Your task to perform on an android device: open wifi settings Image 0: 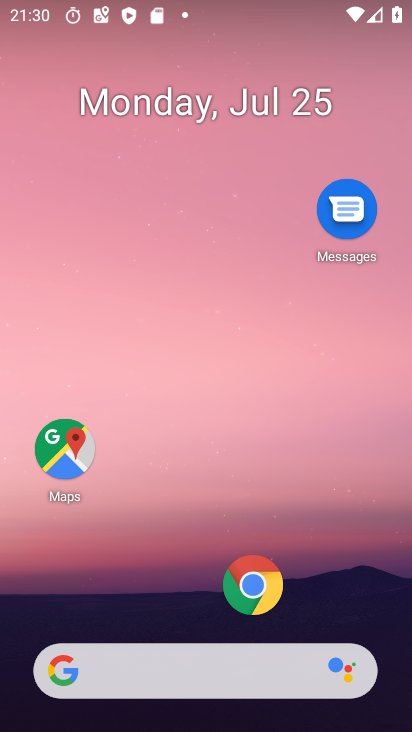
Step 0: drag from (185, 615) to (267, 139)
Your task to perform on an android device: open wifi settings Image 1: 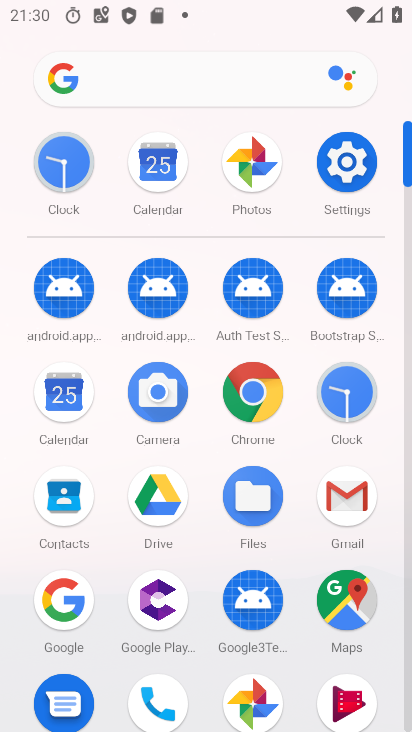
Step 1: click (338, 159)
Your task to perform on an android device: open wifi settings Image 2: 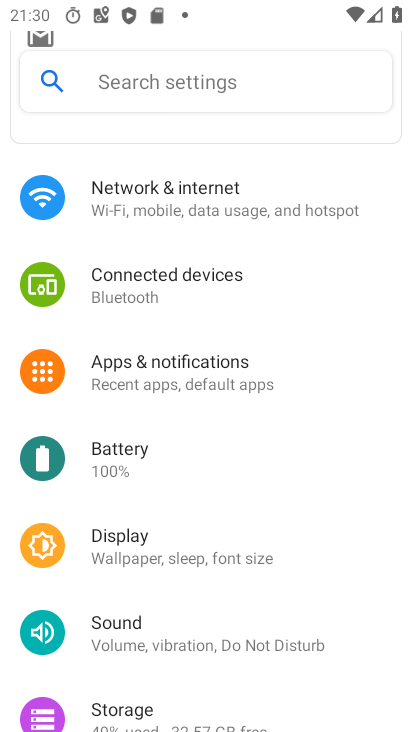
Step 2: click (182, 201)
Your task to perform on an android device: open wifi settings Image 3: 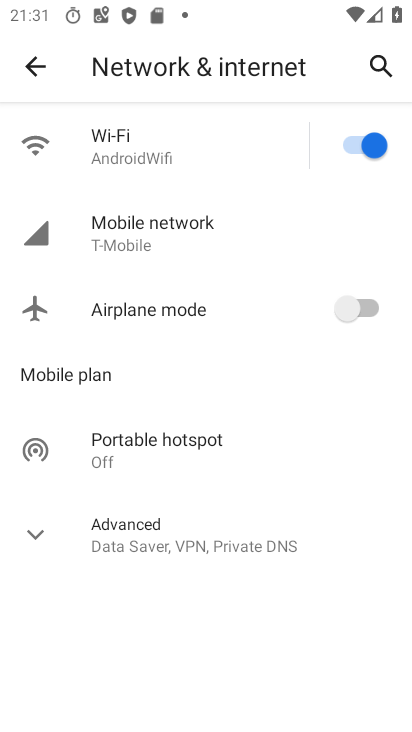
Step 3: click (117, 153)
Your task to perform on an android device: open wifi settings Image 4: 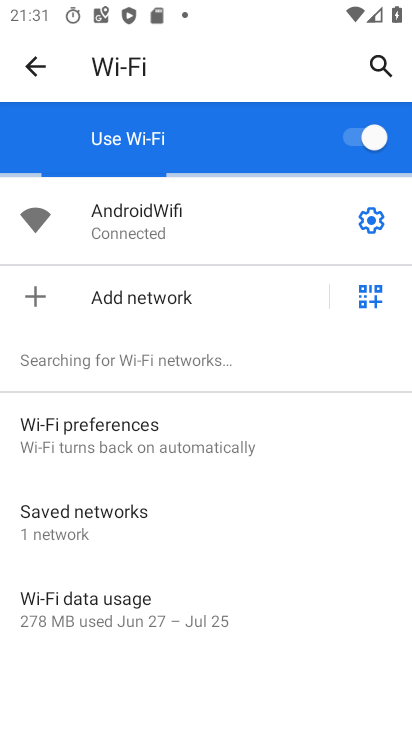
Step 4: task complete